Your task to perform on an android device: add a contact in the contacts app Image 0: 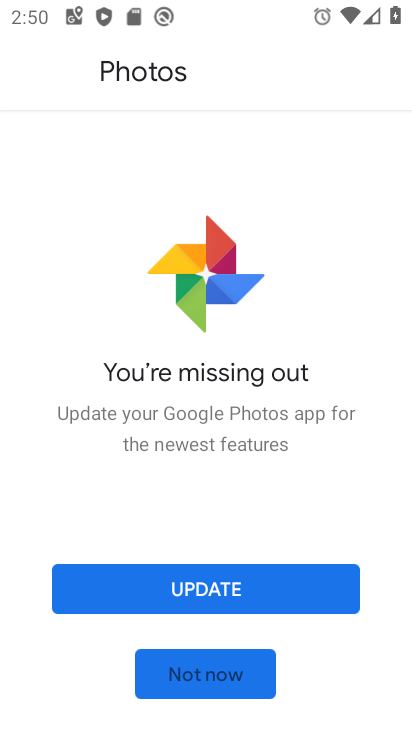
Step 0: press home button
Your task to perform on an android device: add a contact in the contacts app Image 1: 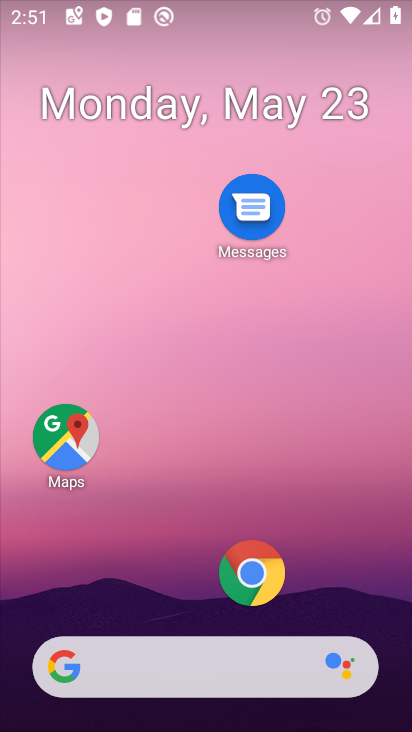
Step 1: drag from (360, 659) to (349, 20)
Your task to perform on an android device: add a contact in the contacts app Image 2: 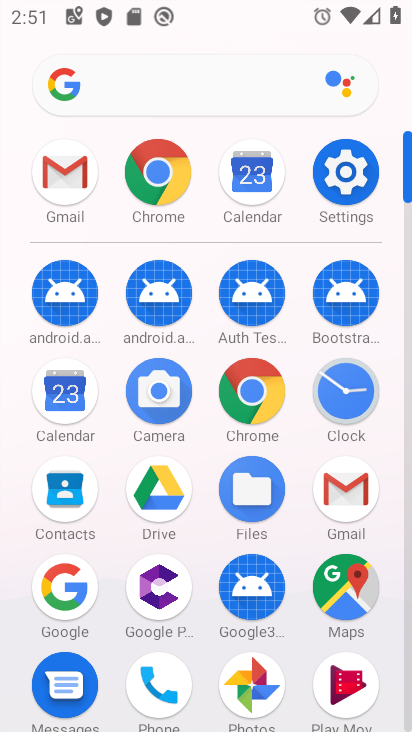
Step 2: click (75, 484)
Your task to perform on an android device: add a contact in the contacts app Image 3: 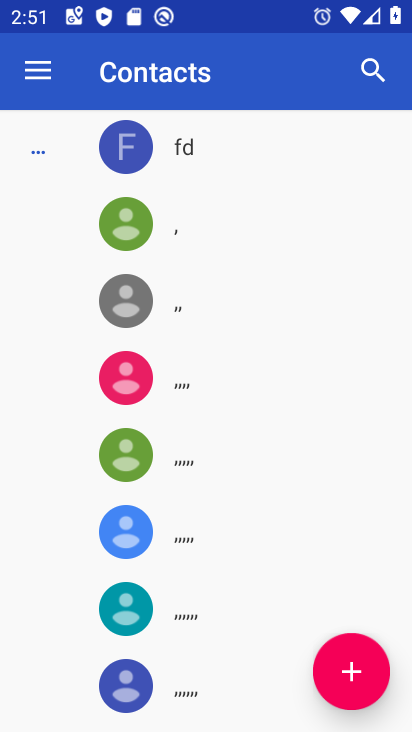
Step 3: click (334, 660)
Your task to perform on an android device: add a contact in the contacts app Image 4: 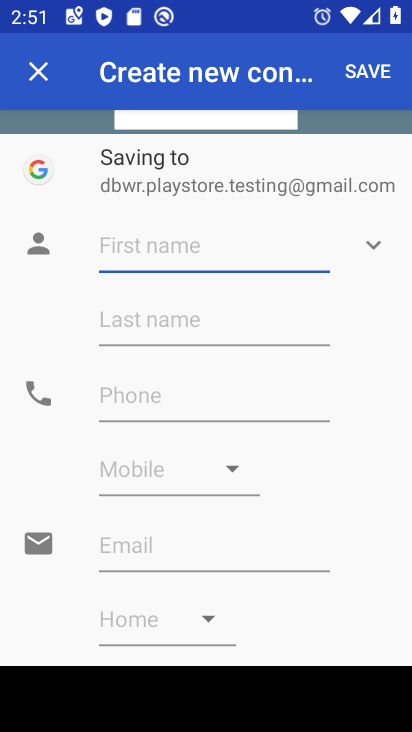
Step 4: type "bfhdhxhxh"
Your task to perform on an android device: add a contact in the contacts app Image 5: 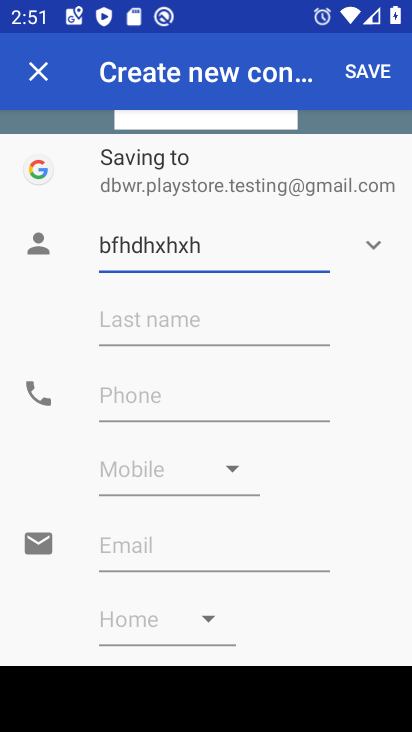
Step 5: click (208, 400)
Your task to perform on an android device: add a contact in the contacts app Image 6: 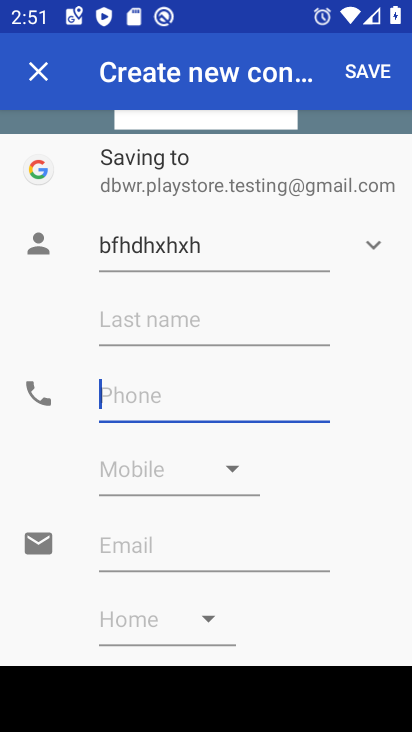
Step 6: type "9879766898"
Your task to perform on an android device: add a contact in the contacts app Image 7: 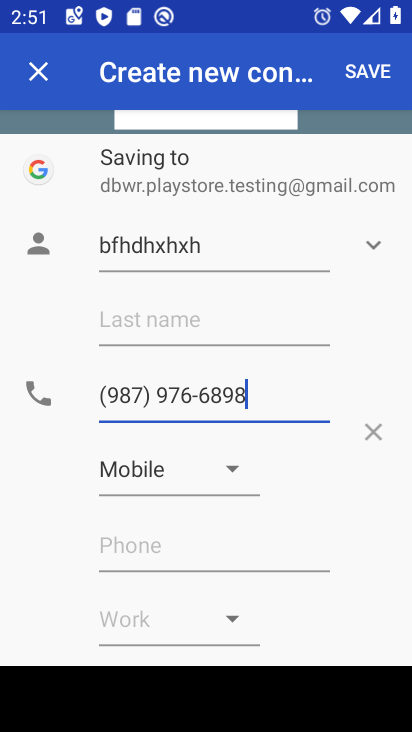
Step 7: click (355, 71)
Your task to perform on an android device: add a contact in the contacts app Image 8: 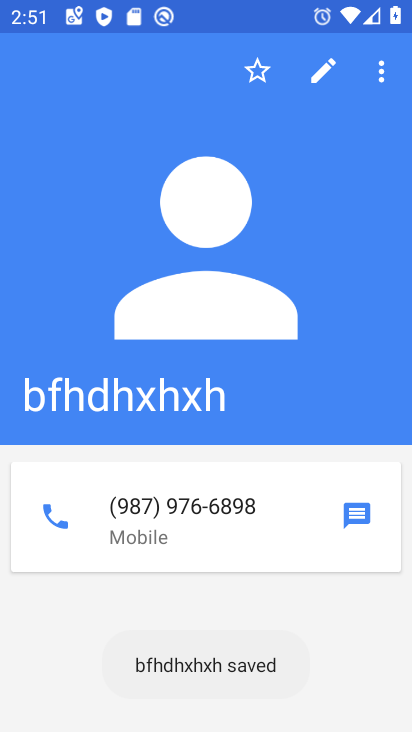
Step 8: task complete